Your task to perform on an android device: toggle show notifications on the lock screen Image 0: 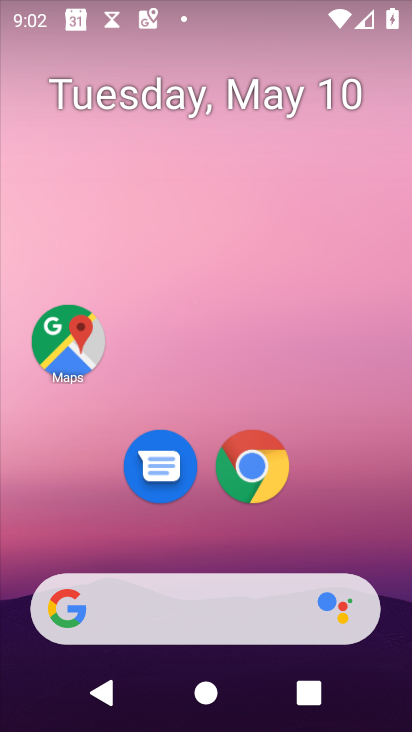
Step 0: drag from (363, 533) to (371, 61)
Your task to perform on an android device: toggle show notifications on the lock screen Image 1: 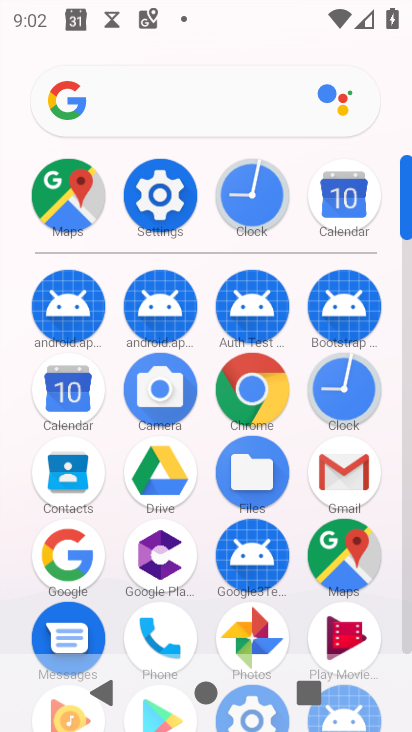
Step 1: click (149, 197)
Your task to perform on an android device: toggle show notifications on the lock screen Image 2: 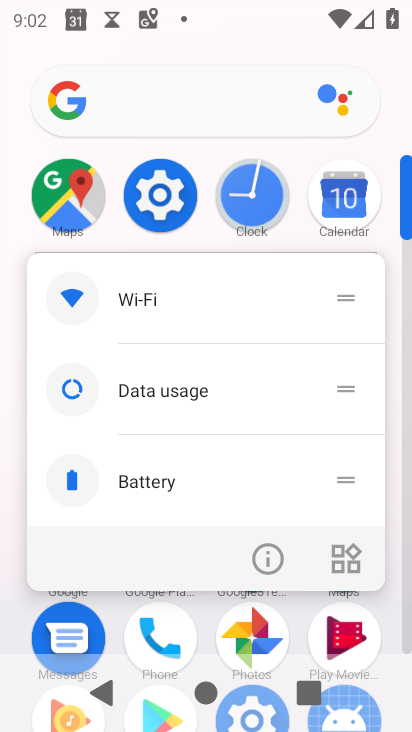
Step 2: click (149, 202)
Your task to perform on an android device: toggle show notifications on the lock screen Image 3: 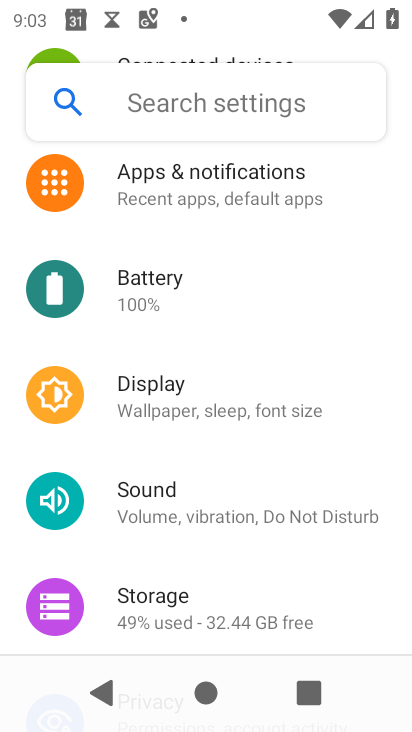
Step 3: click (189, 207)
Your task to perform on an android device: toggle show notifications on the lock screen Image 4: 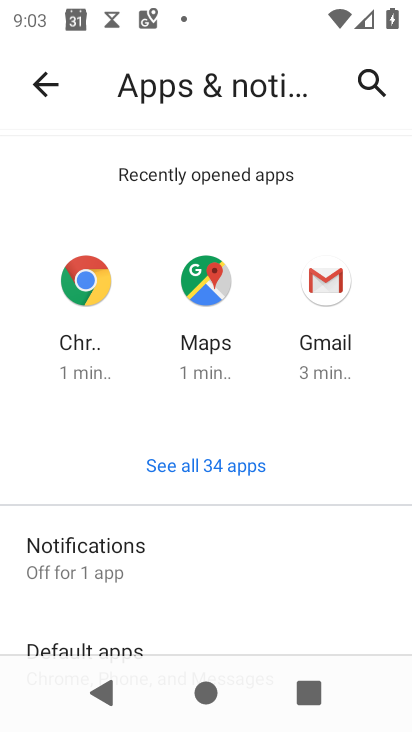
Step 4: drag from (183, 518) to (219, 286)
Your task to perform on an android device: toggle show notifications on the lock screen Image 5: 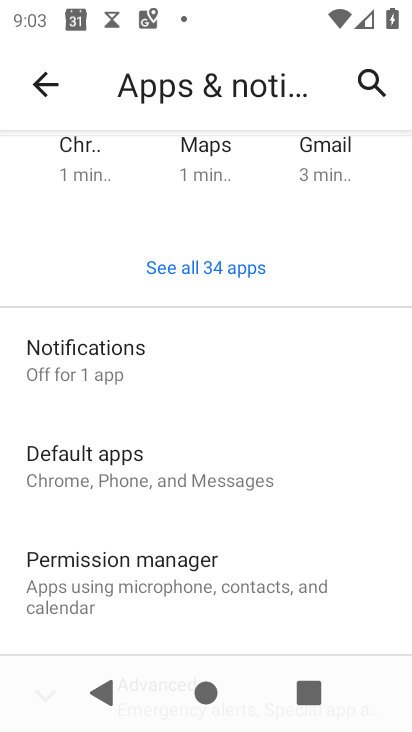
Step 5: click (161, 348)
Your task to perform on an android device: toggle show notifications on the lock screen Image 6: 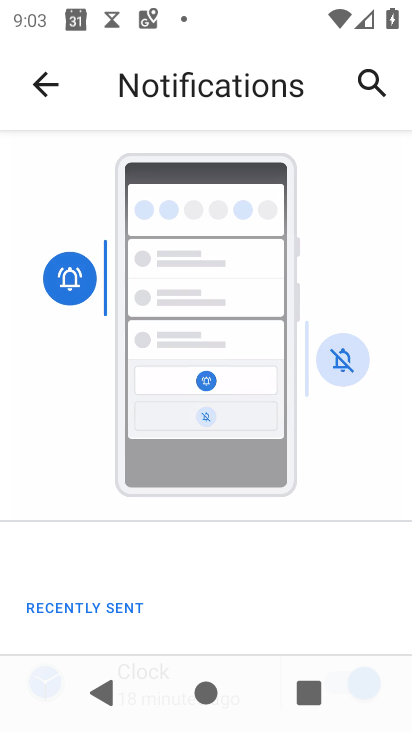
Step 6: drag from (153, 588) to (206, 340)
Your task to perform on an android device: toggle show notifications on the lock screen Image 7: 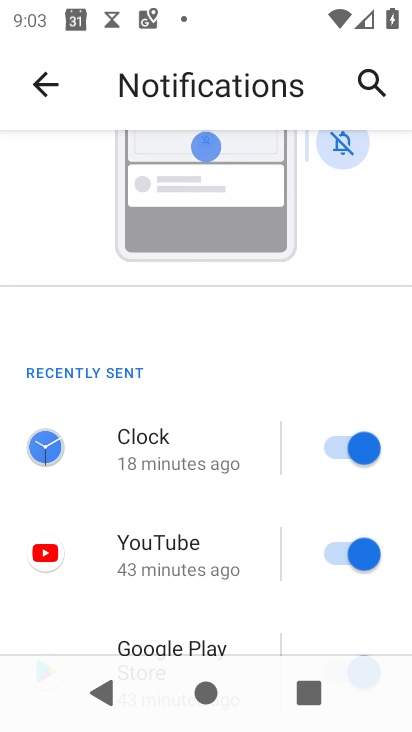
Step 7: drag from (194, 583) to (241, 261)
Your task to perform on an android device: toggle show notifications on the lock screen Image 8: 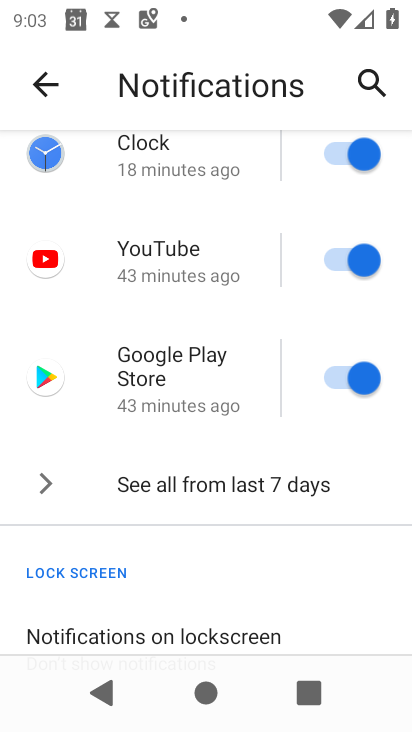
Step 8: drag from (218, 554) to (220, 231)
Your task to perform on an android device: toggle show notifications on the lock screen Image 9: 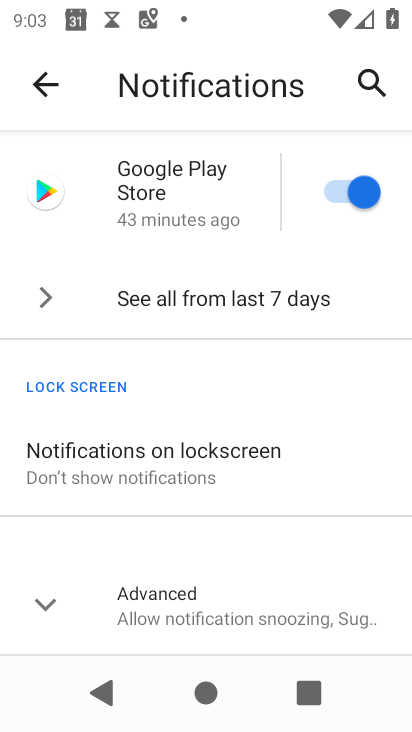
Step 9: click (167, 452)
Your task to perform on an android device: toggle show notifications on the lock screen Image 10: 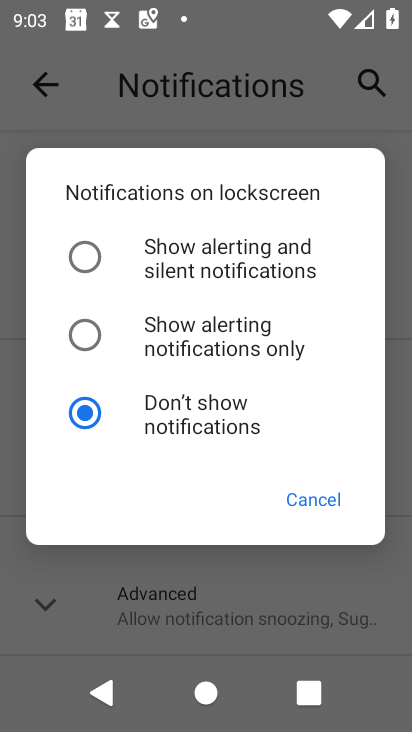
Step 10: click (217, 261)
Your task to perform on an android device: toggle show notifications on the lock screen Image 11: 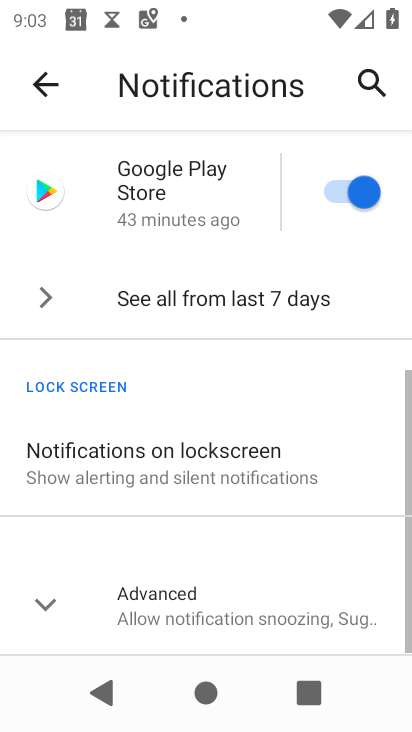
Step 11: task complete